Your task to perform on an android device: Show me the alarms in the clock app Image 0: 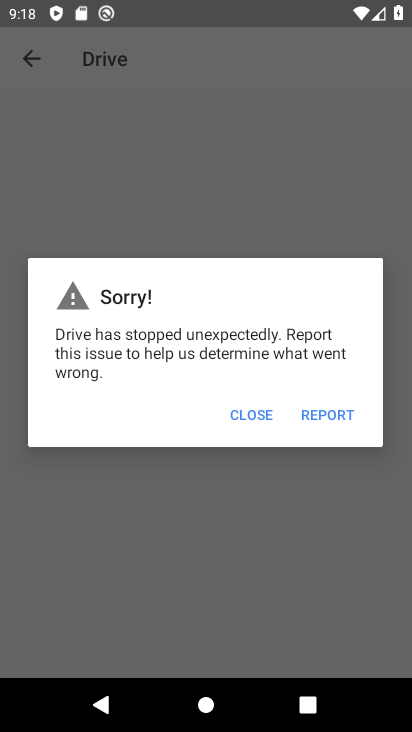
Step 0: press home button
Your task to perform on an android device: Show me the alarms in the clock app Image 1: 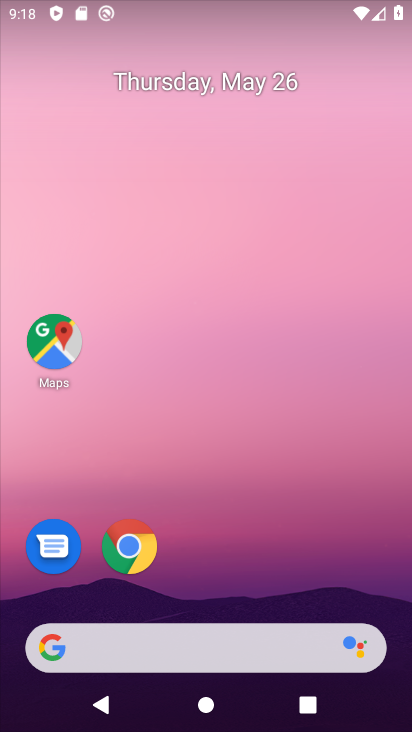
Step 1: drag from (366, 617) to (303, 191)
Your task to perform on an android device: Show me the alarms in the clock app Image 2: 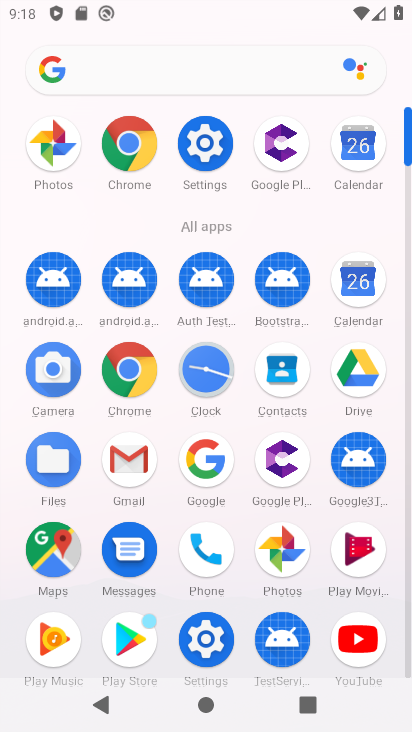
Step 2: click (206, 375)
Your task to perform on an android device: Show me the alarms in the clock app Image 3: 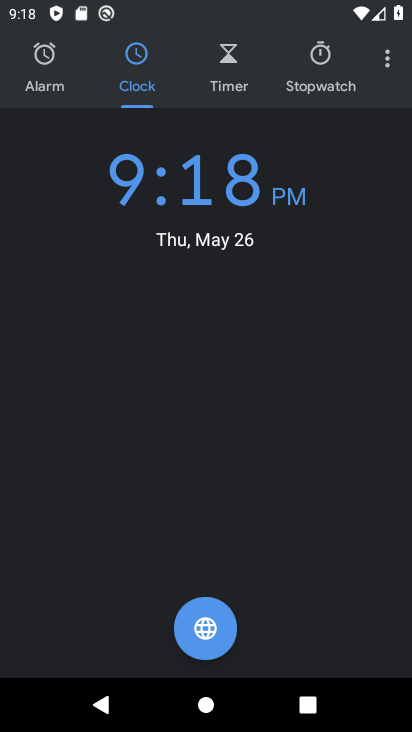
Step 3: click (57, 79)
Your task to perform on an android device: Show me the alarms in the clock app Image 4: 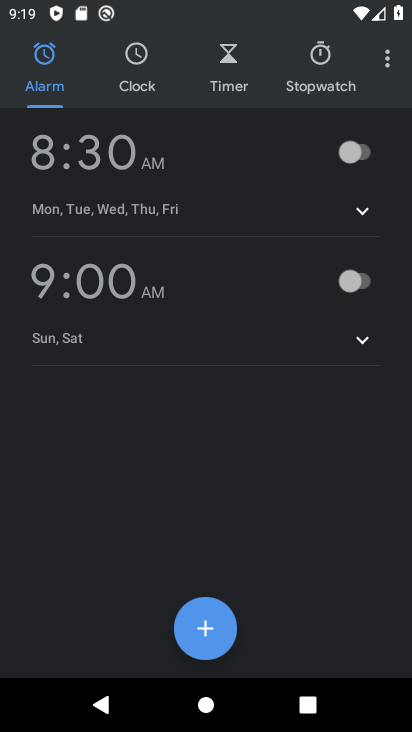
Step 4: task complete